Your task to perform on an android device: change timer sound Image 0: 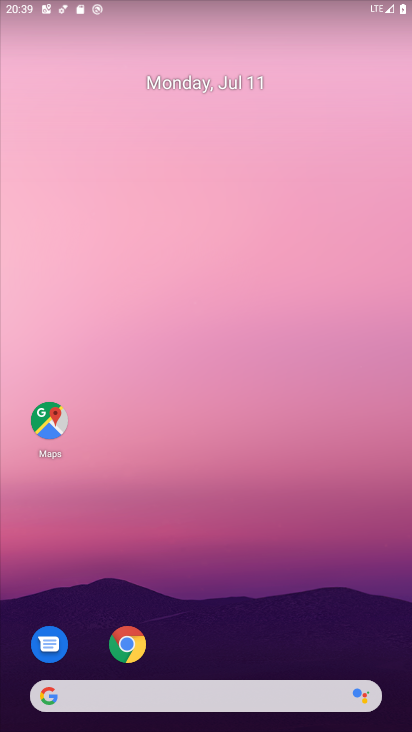
Step 0: drag from (221, 654) to (228, 228)
Your task to perform on an android device: change timer sound Image 1: 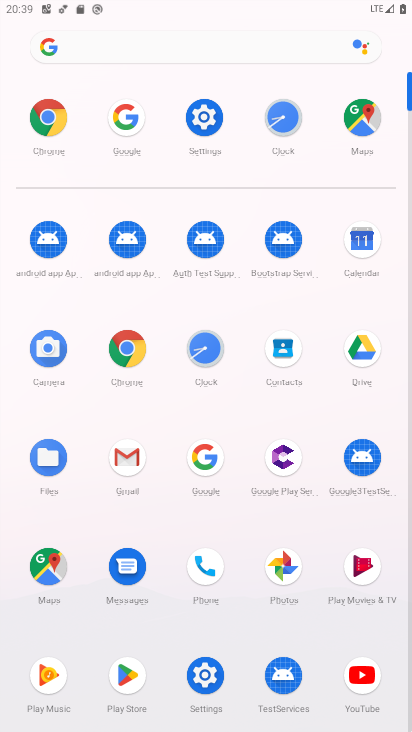
Step 1: click (198, 114)
Your task to perform on an android device: change timer sound Image 2: 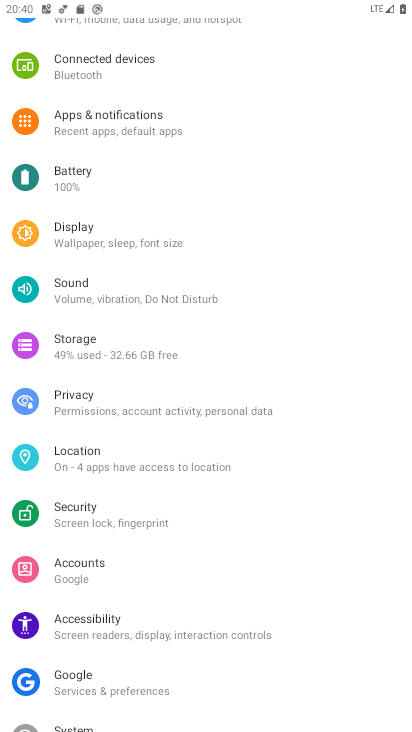
Step 2: press home button
Your task to perform on an android device: change timer sound Image 3: 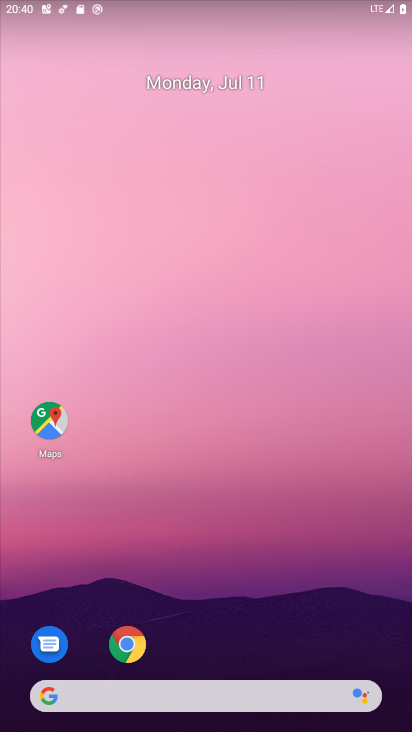
Step 3: drag from (222, 670) to (243, 413)
Your task to perform on an android device: change timer sound Image 4: 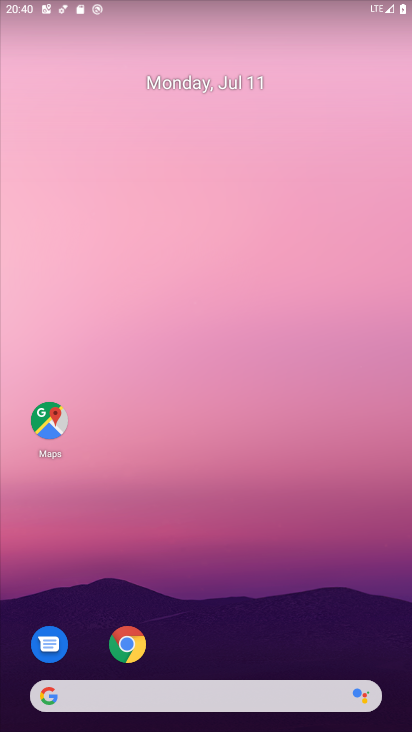
Step 4: drag from (219, 577) to (189, 157)
Your task to perform on an android device: change timer sound Image 5: 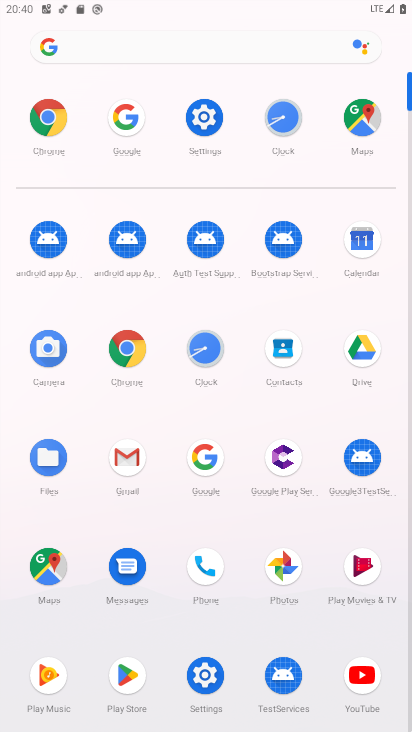
Step 5: click (211, 354)
Your task to perform on an android device: change timer sound Image 6: 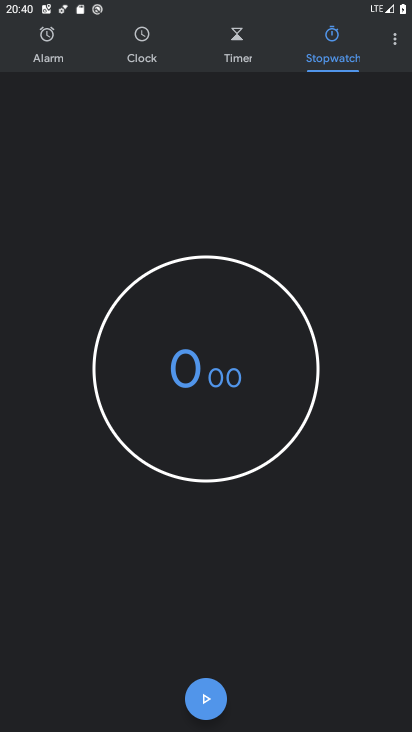
Step 6: click (394, 44)
Your task to perform on an android device: change timer sound Image 7: 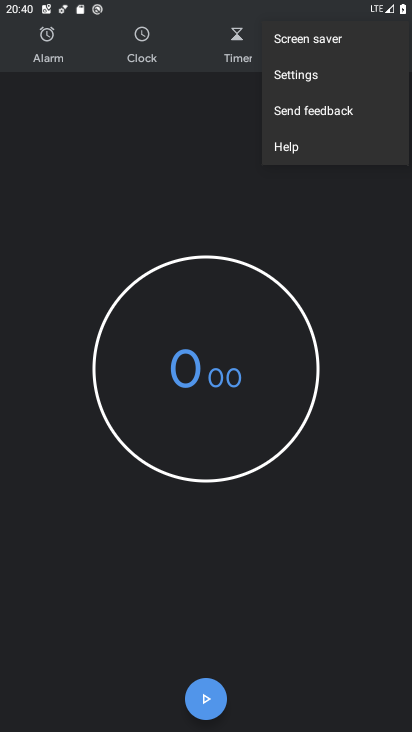
Step 7: click (394, 37)
Your task to perform on an android device: change timer sound Image 8: 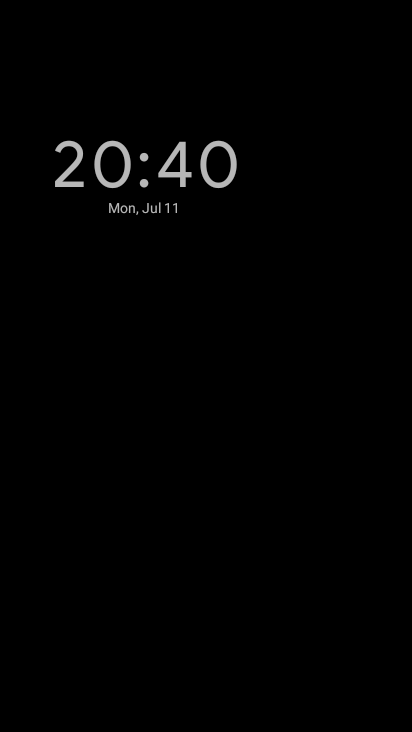
Step 8: press back button
Your task to perform on an android device: change timer sound Image 9: 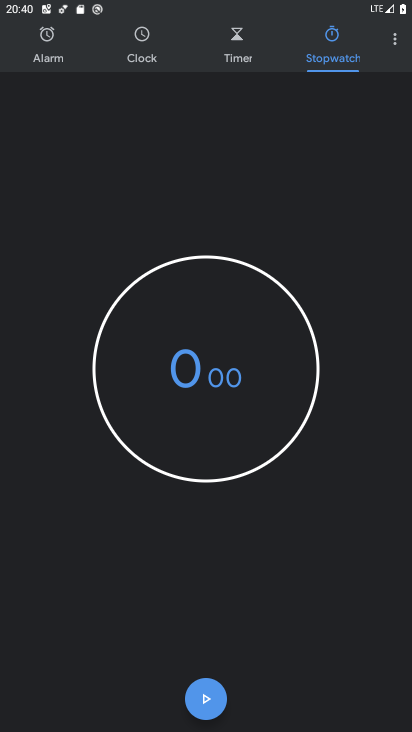
Step 9: click (401, 34)
Your task to perform on an android device: change timer sound Image 10: 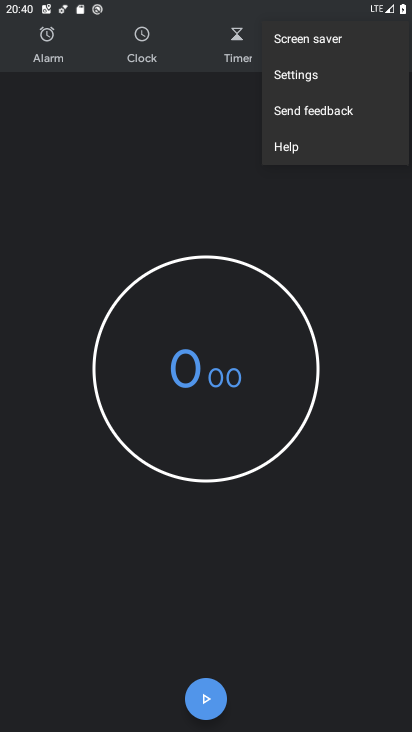
Step 10: click (325, 71)
Your task to perform on an android device: change timer sound Image 11: 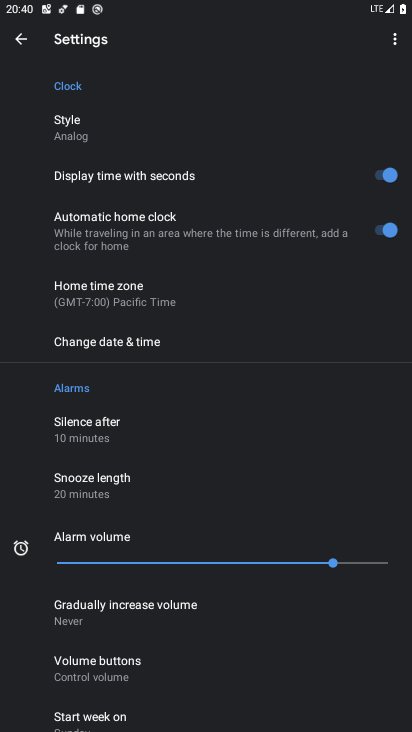
Step 11: drag from (227, 485) to (233, 164)
Your task to perform on an android device: change timer sound Image 12: 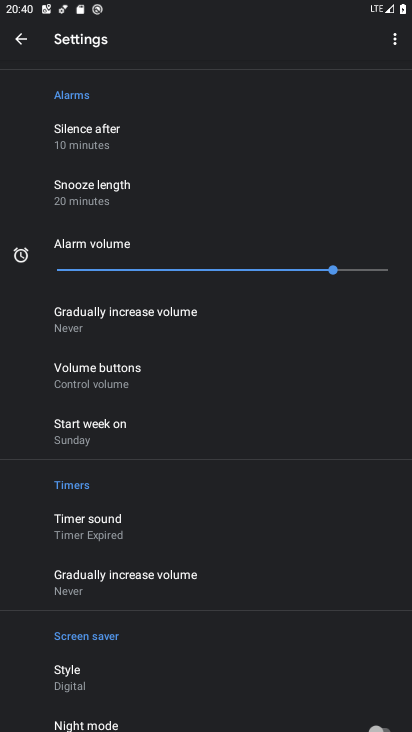
Step 12: click (121, 524)
Your task to perform on an android device: change timer sound Image 13: 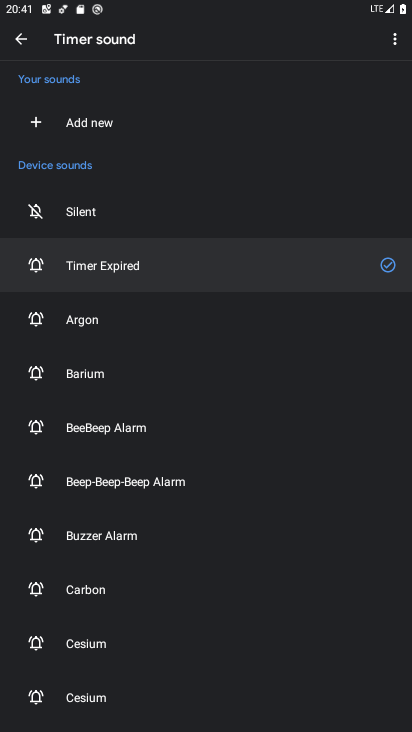
Step 13: click (126, 484)
Your task to perform on an android device: change timer sound Image 14: 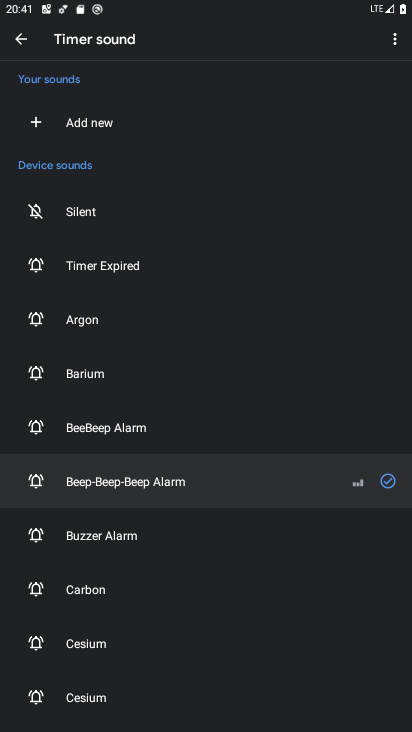
Step 14: task complete